Your task to perform on an android device: turn on the 24-hour format for clock Image 0: 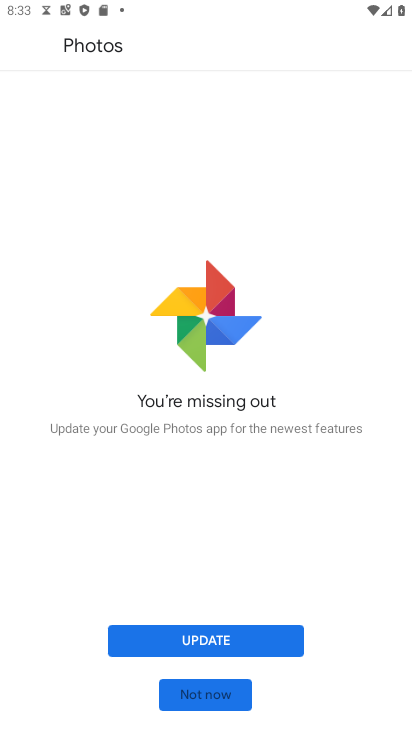
Step 0: press home button
Your task to perform on an android device: turn on the 24-hour format for clock Image 1: 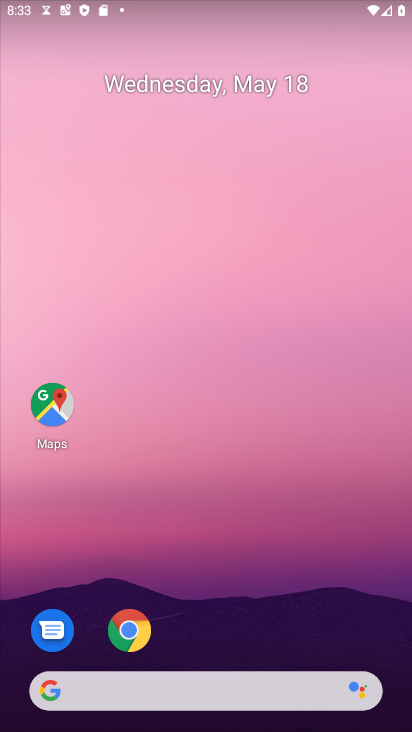
Step 1: drag from (134, 694) to (271, 245)
Your task to perform on an android device: turn on the 24-hour format for clock Image 2: 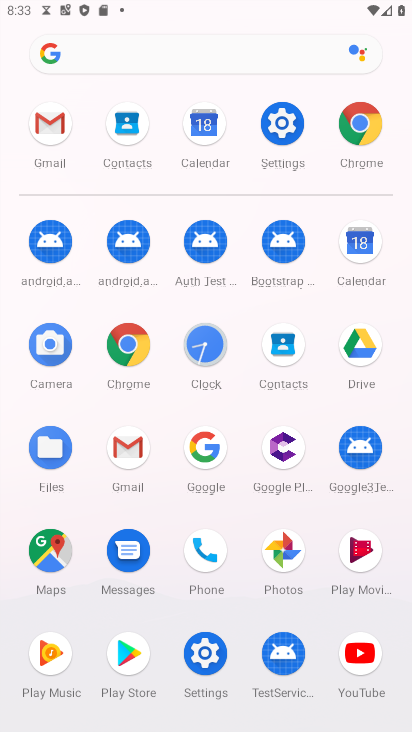
Step 2: click (196, 348)
Your task to perform on an android device: turn on the 24-hour format for clock Image 3: 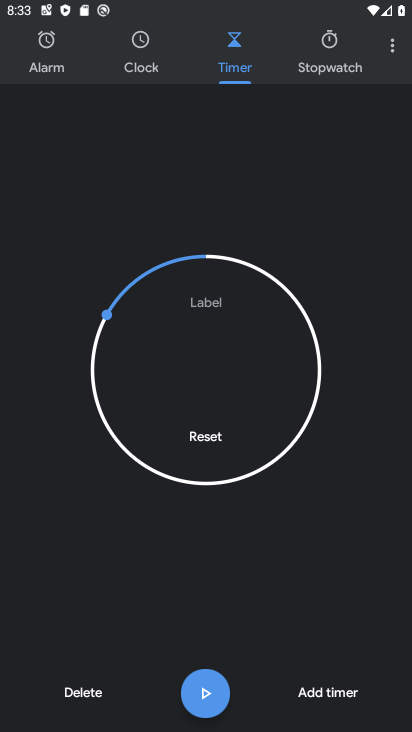
Step 3: click (397, 46)
Your task to perform on an android device: turn on the 24-hour format for clock Image 4: 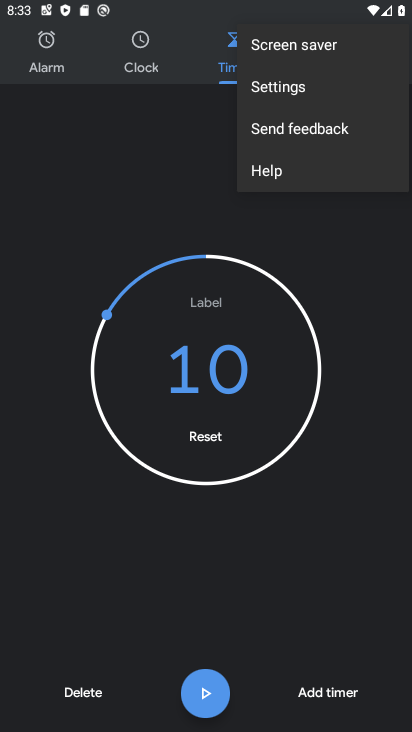
Step 4: click (303, 86)
Your task to perform on an android device: turn on the 24-hour format for clock Image 5: 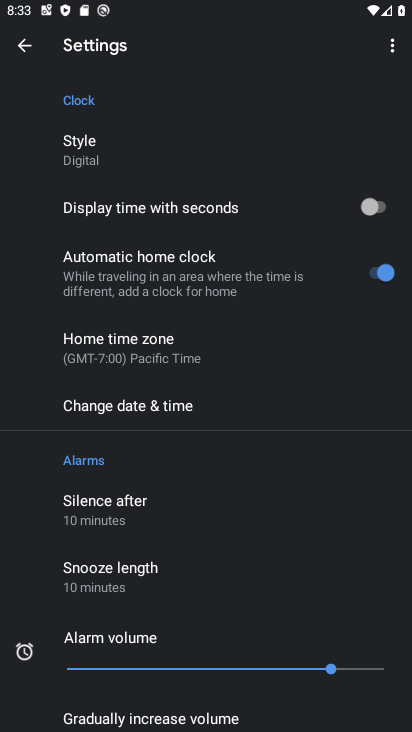
Step 5: click (177, 407)
Your task to perform on an android device: turn on the 24-hour format for clock Image 6: 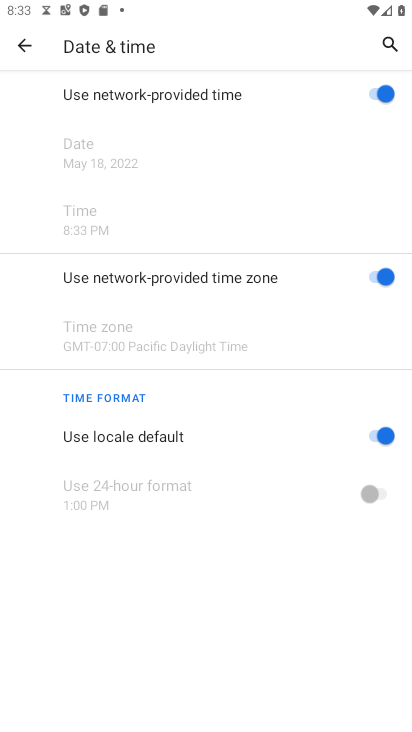
Step 6: click (385, 492)
Your task to perform on an android device: turn on the 24-hour format for clock Image 7: 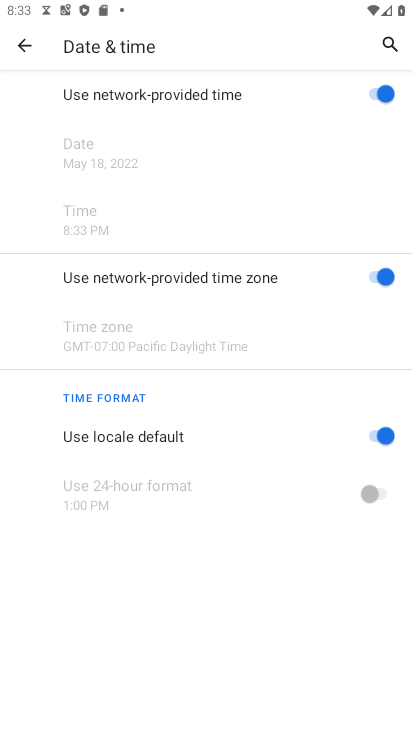
Step 7: click (374, 439)
Your task to perform on an android device: turn on the 24-hour format for clock Image 8: 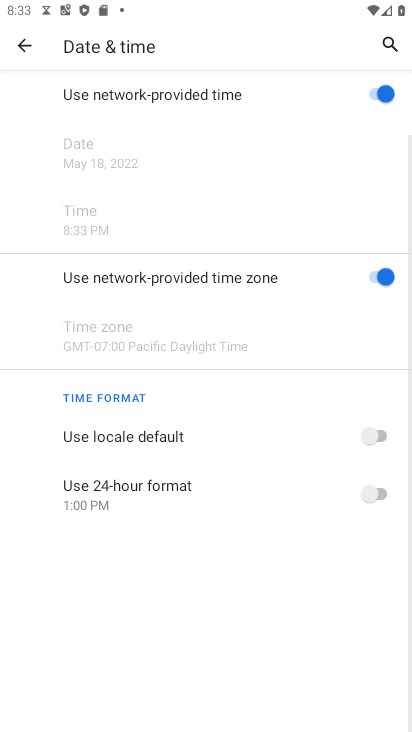
Step 8: click (381, 493)
Your task to perform on an android device: turn on the 24-hour format for clock Image 9: 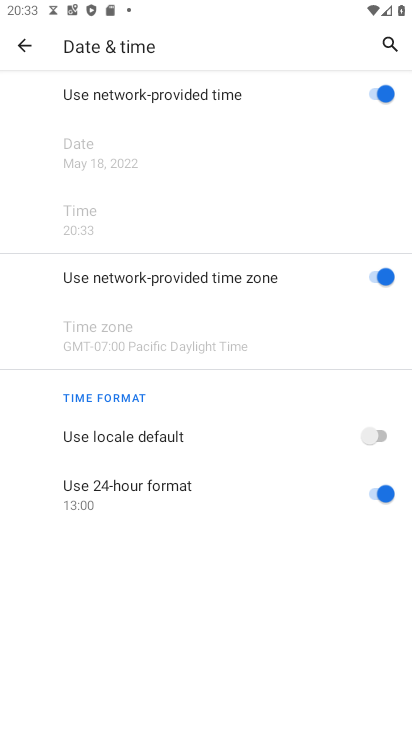
Step 9: task complete